Your task to perform on an android device: Search for the best selling TV on Best Buy. Image 0: 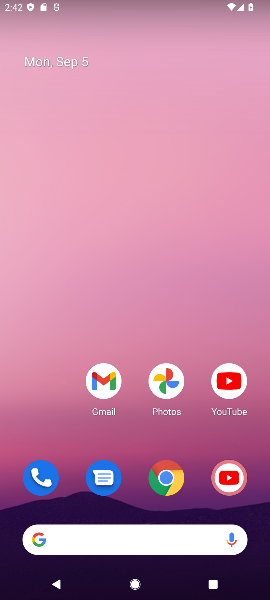
Step 0: drag from (149, 515) to (113, 1)
Your task to perform on an android device: Search for the best selling TV on Best Buy. Image 1: 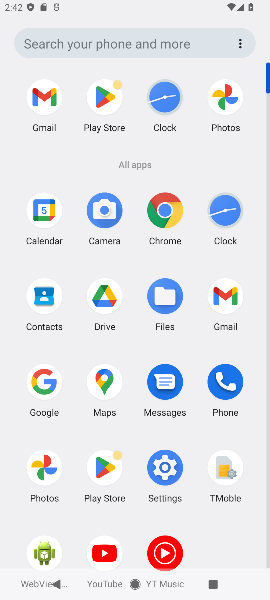
Step 1: click (168, 223)
Your task to perform on an android device: Search for the best selling TV on Best Buy. Image 2: 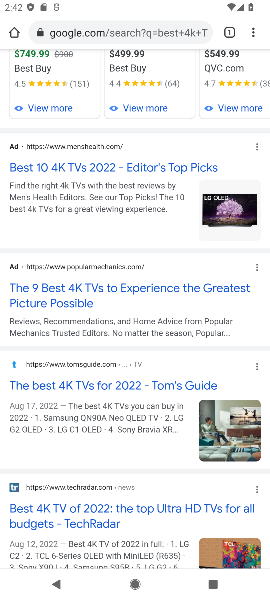
Step 2: drag from (174, 209) to (200, 493)
Your task to perform on an android device: Search for the best selling TV on Best Buy. Image 3: 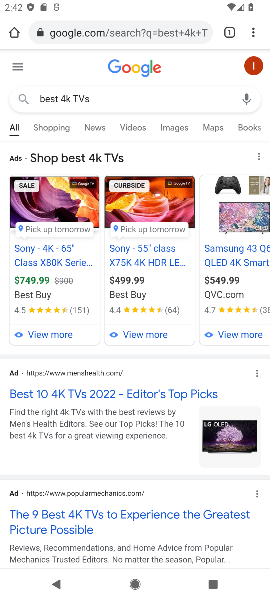
Step 3: click (190, 94)
Your task to perform on an android device: Search for the best selling TV on Best Buy. Image 4: 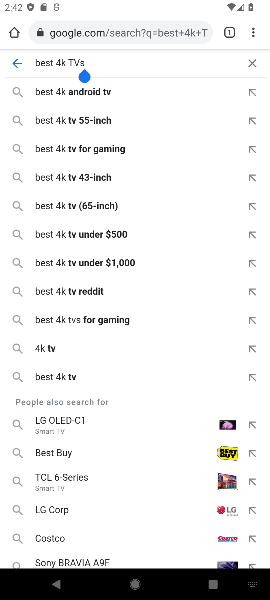
Step 4: click (253, 71)
Your task to perform on an android device: Search for the best selling TV on Best Buy. Image 5: 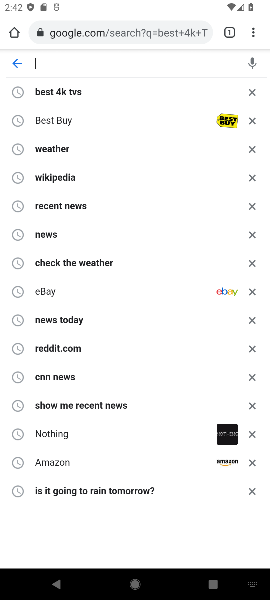
Step 5: click (51, 119)
Your task to perform on an android device: Search for the best selling TV on Best Buy. Image 6: 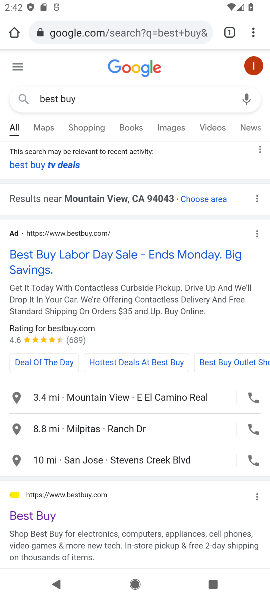
Step 6: drag from (105, 395) to (105, 118)
Your task to perform on an android device: Search for the best selling TV on Best Buy. Image 7: 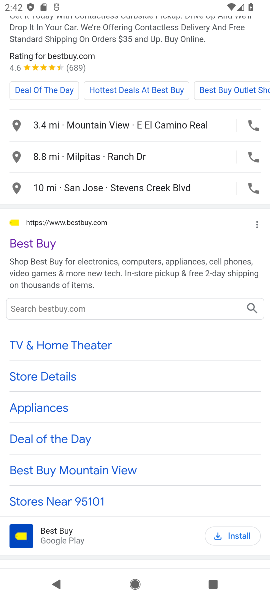
Step 7: drag from (129, 470) to (127, 276)
Your task to perform on an android device: Search for the best selling TV on Best Buy. Image 8: 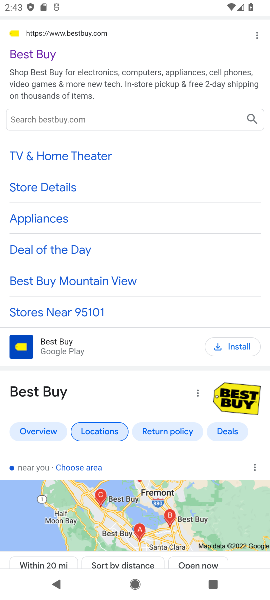
Step 8: drag from (131, 520) to (120, 282)
Your task to perform on an android device: Search for the best selling TV on Best Buy. Image 9: 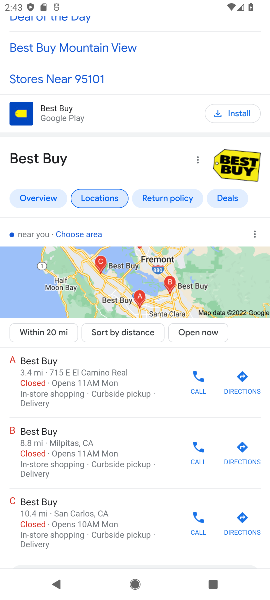
Step 9: drag from (131, 452) to (108, 113)
Your task to perform on an android device: Search for the best selling TV on Best Buy. Image 10: 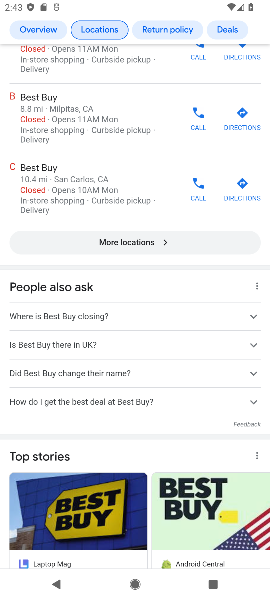
Step 10: drag from (136, 422) to (106, 147)
Your task to perform on an android device: Search for the best selling TV on Best Buy. Image 11: 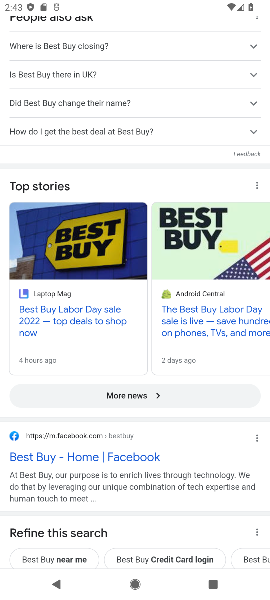
Step 11: drag from (145, 472) to (126, 182)
Your task to perform on an android device: Search for the best selling TV on Best Buy. Image 12: 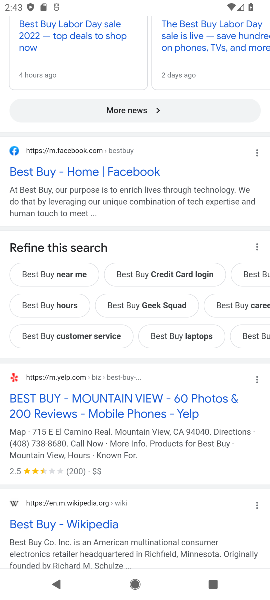
Step 12: drag from (156, 242) to (154, 474)
Your task to perform on an android device: Search for the best selling TV on Best Buy. Image 13: 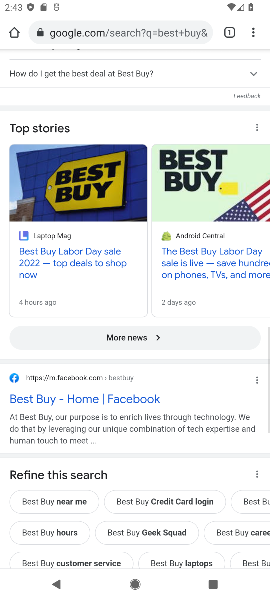
Step 13: drag from (152, 200) to (179, 487)
Your task to perform on an android device: Search for the best selling TV on Best Buy. Image 14: 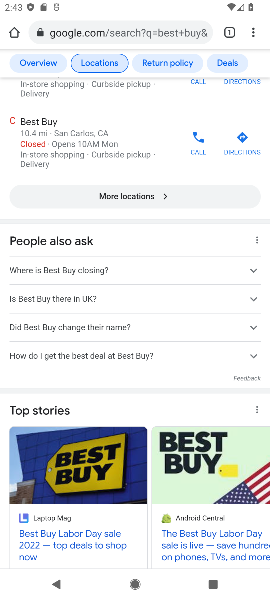
Step 14: drag from (194, 210) to (214, 537)
Your task to perform on an android device: Search for the best selling TV on Best Buy. Image 15: 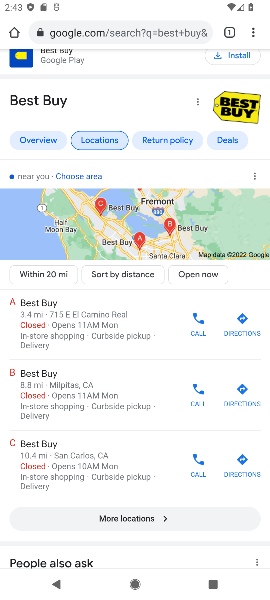
Step 15: drag from (190, 188) to (188, 440)
Your task to perform on an android device: Search for the best selling TV on Best Buy. Image 16: 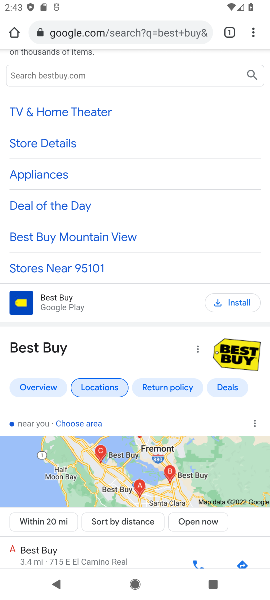
Step 16: drag from (112, 176) to (115, 344)
Your task to perform on an android device: Search for the best selling TV on Best Buy. Image 17: 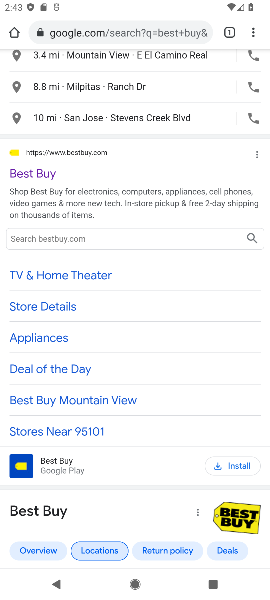
Step 17: click (28, 170)
Your task to perform on an android device: Search for the best selling TV on Best Buy. Image 18: 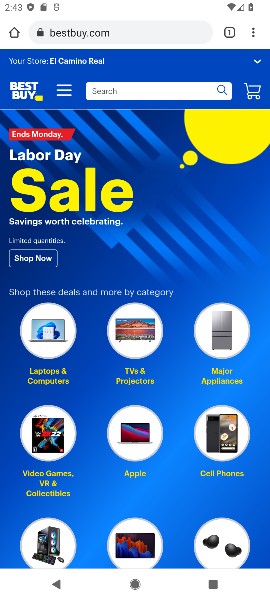
Step 18: click (195, 92)
Your task to perform on an android device: Search for the best selling TV on Best Buy. Image 19: 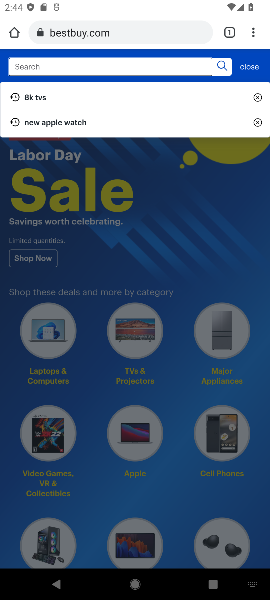
Step 19: type "best selling TV"
Your task to perform on an android device: Search for the best selling TV on Best Buy. Image 20: 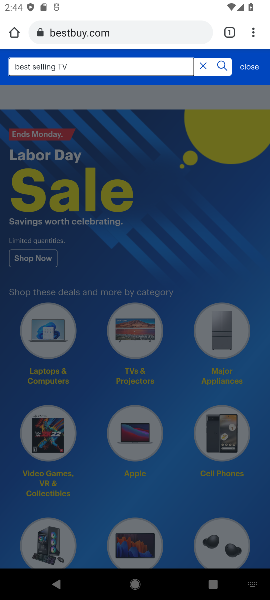
Step 20: click (224, 72)
Your task to perform on an android device: Search for the best selling TV on Best Buy. Image 21: 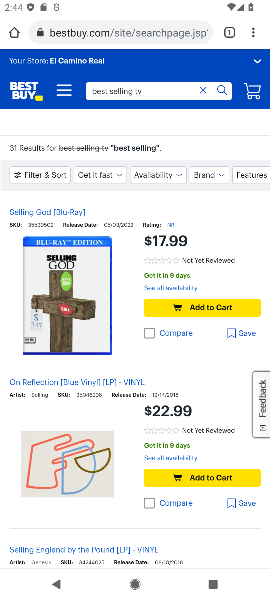
Step 21: task complete